Your task to perform on an android device: turn off notifications in google photos Image 0: 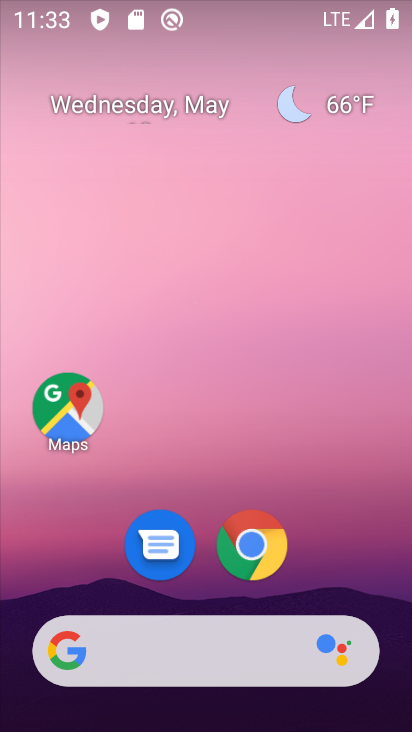
Step 0: drag from (209, 628) to (171, 24)
Your task to perform on an android device: turn off notifications in google photos Image 1: 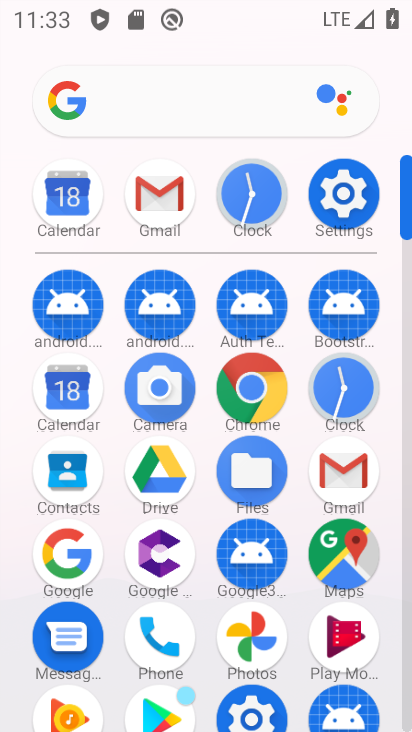
Step 1: click (235, 622)
Your task to perform on an android device: turn off notifications in google photos Image 2: 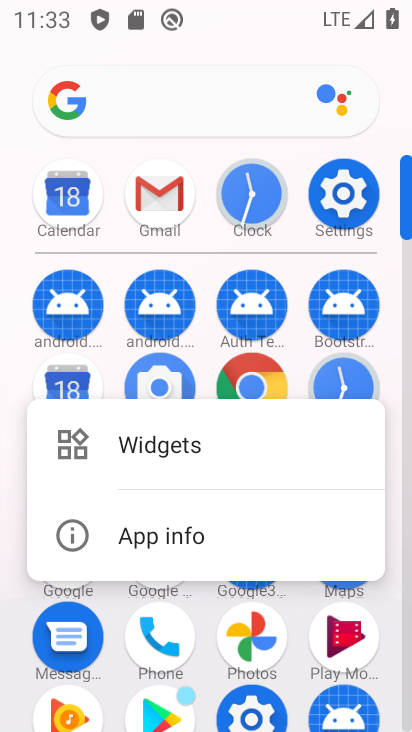
Step 2: click (178, 543)
Your task to perform on an android device: turn off notifications in google photos Image 3: 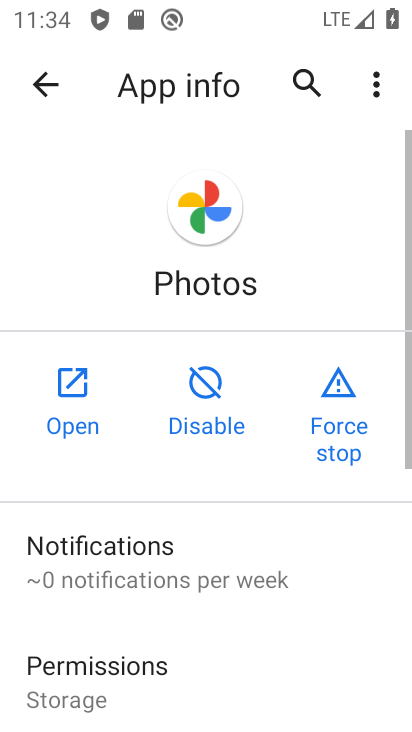
Step 3: click (111, 570)
Your task to perform on an android device: turn off notifications in google photos Image 4: 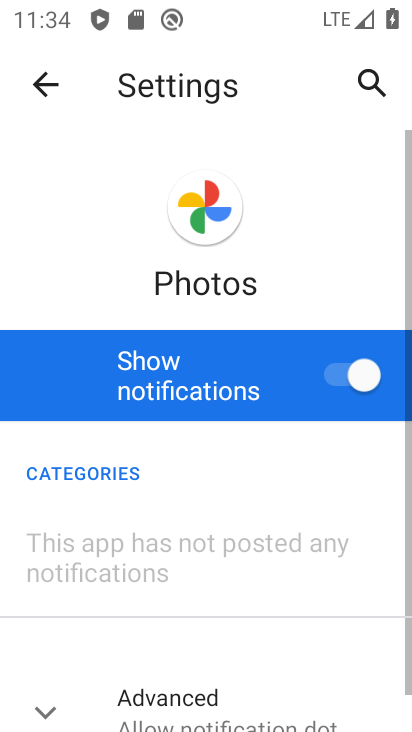
Step 4: click (366, 376)
Your task to perform on an android device: turn off notifications in google photos Image 5: 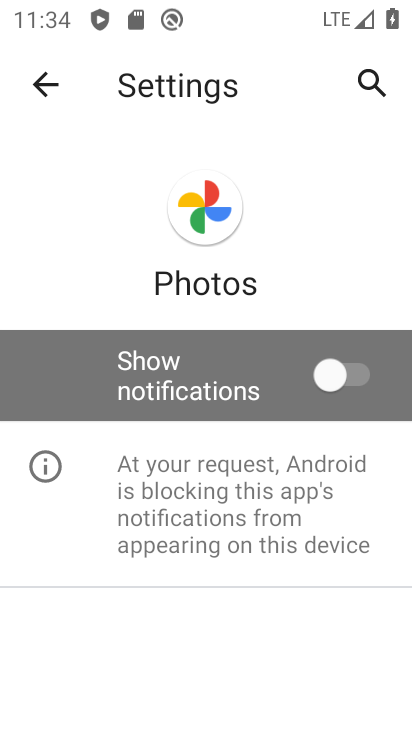
Step 5: task complete